Your task to perform on an android device: Show the shopping cart on bestbuy.com. Image 0: 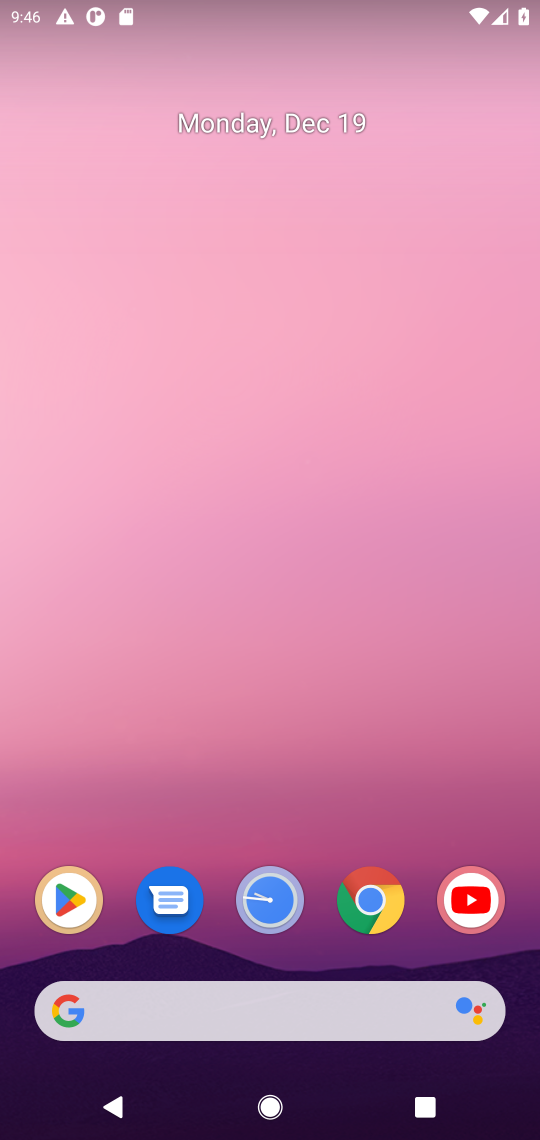
Step 0: click (384, 900)
Your task to perform on an android device: Show the shopping cart on bestbuy.com. Image 1: 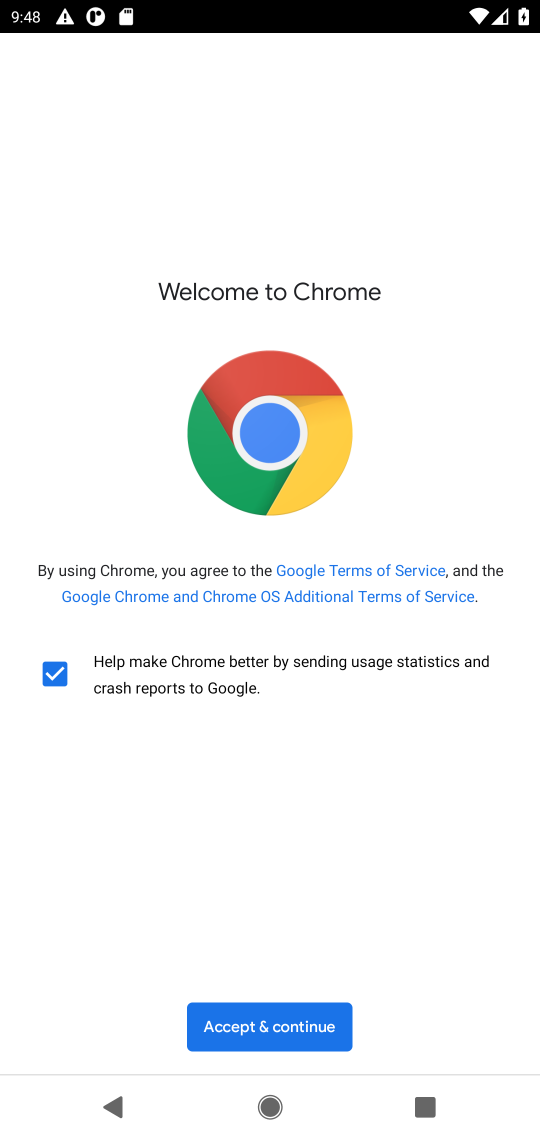
Step 1: click (240, 1026)
Your task to perform on an android device: Show the shopping cart on bestbuy.com. Image 2: 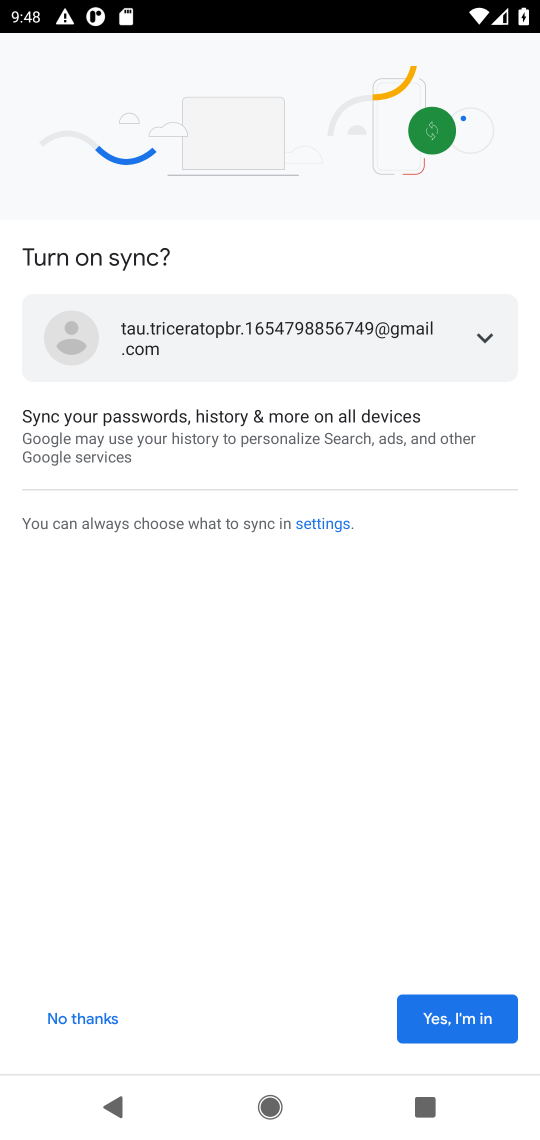
Step 2: click (448, 1019)
Your task to perform on an android device: Show the shopping cart on bestbuy.com. Image 3: 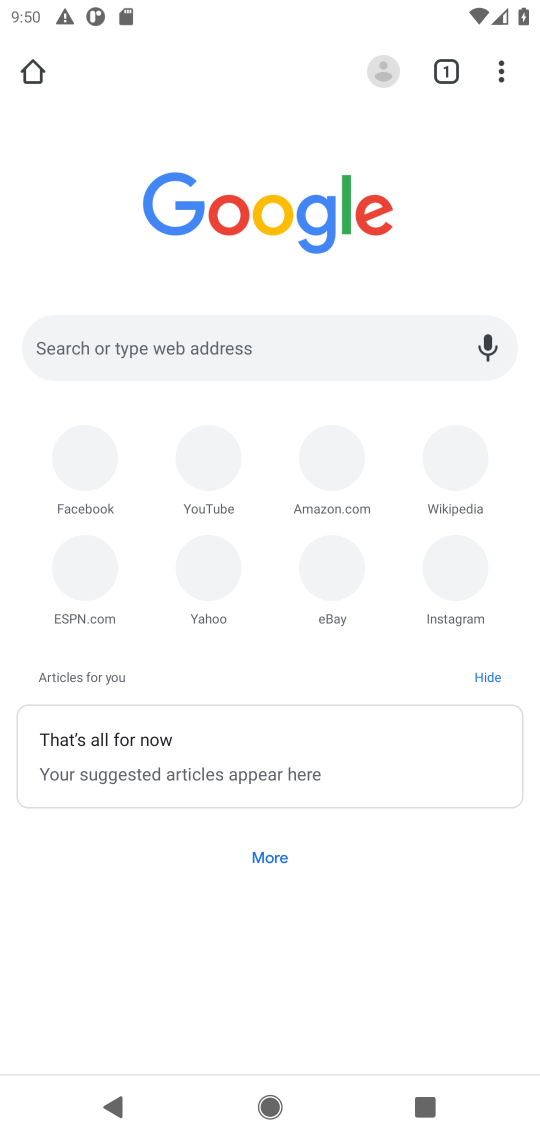
Step 3: click (149, 352)
Your task to perform on an android device: Show the shopping cart on bestbuy.com. Image 4: 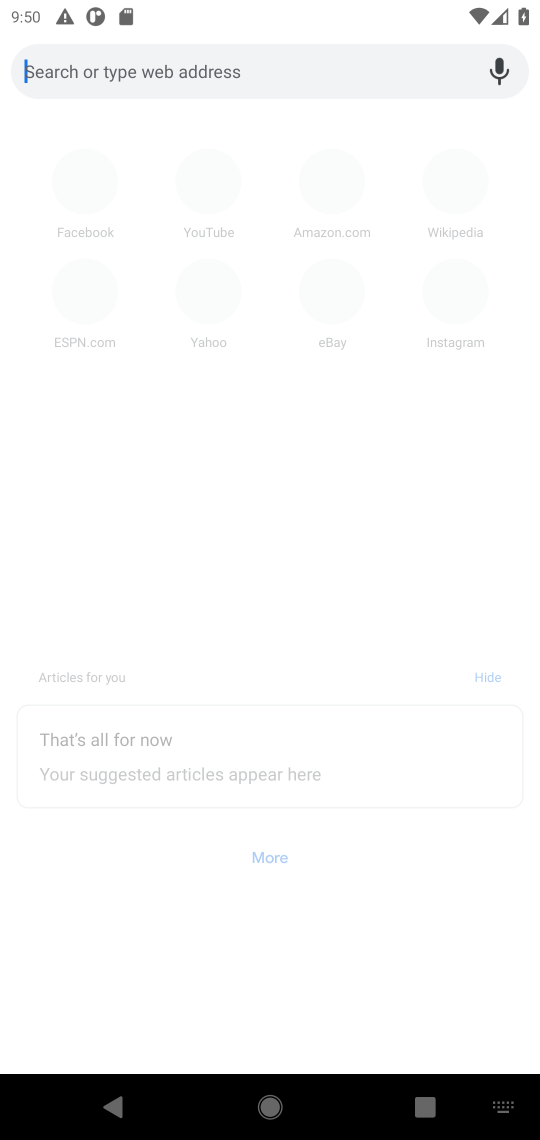
Step 4: type "bestbuy"
Your task to perform on an android device: Show the shopping cart on bestbuy.com. Image 5: 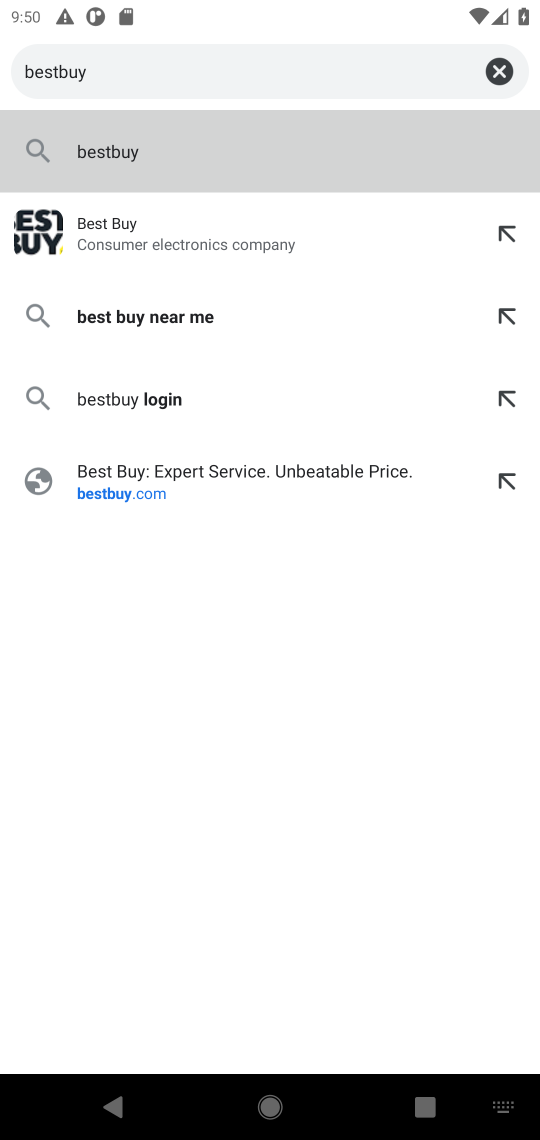
Step 5: click (181, 233)
Your task to perform on an android device: Show the shopping cart on bestbuy.com. Image 6: 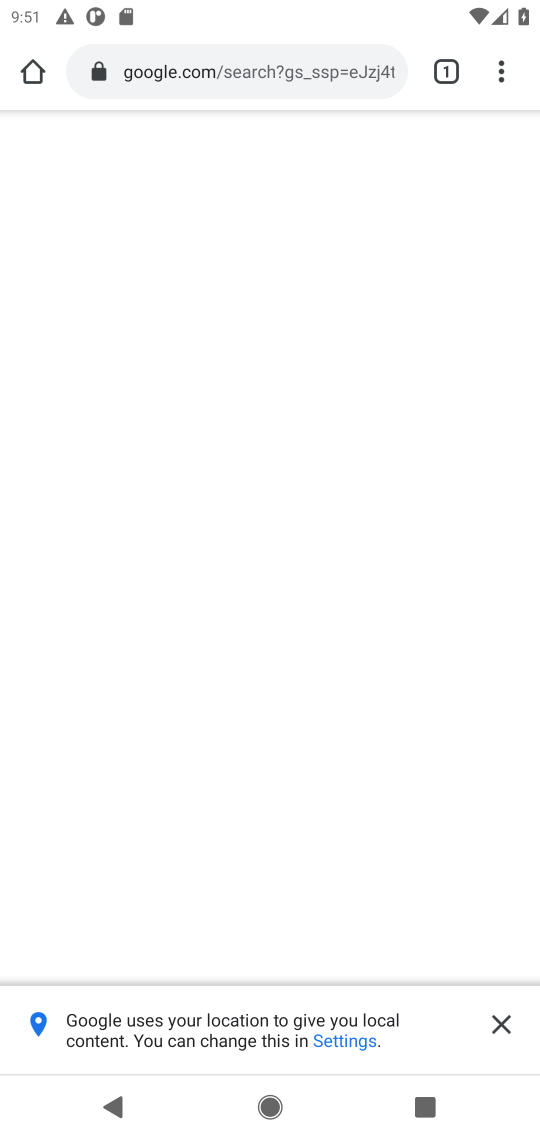
Step 6: task complete